Your task to perform on an android device: Open Wikipedia Image 0: 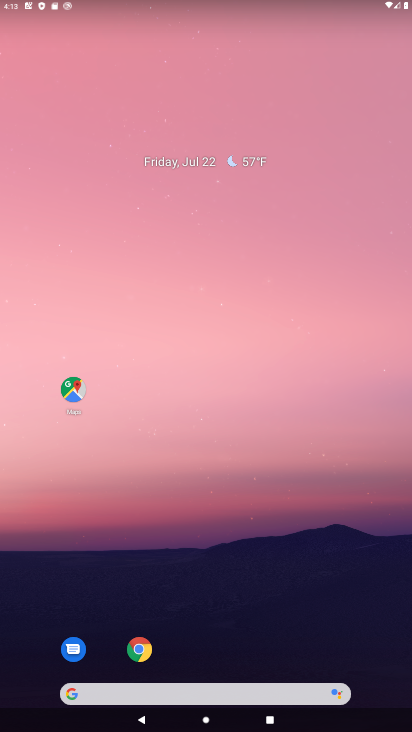
Step 0: click (133, 701)
Your task to perform on an android device: Open Wikipedia Image 1: 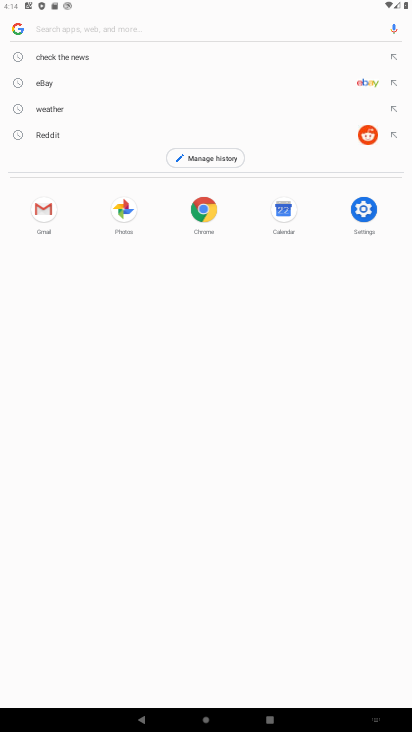
Step 1: type " Wikipedia"
Your task to perform on an android device: Open Wikipedia Image 2: 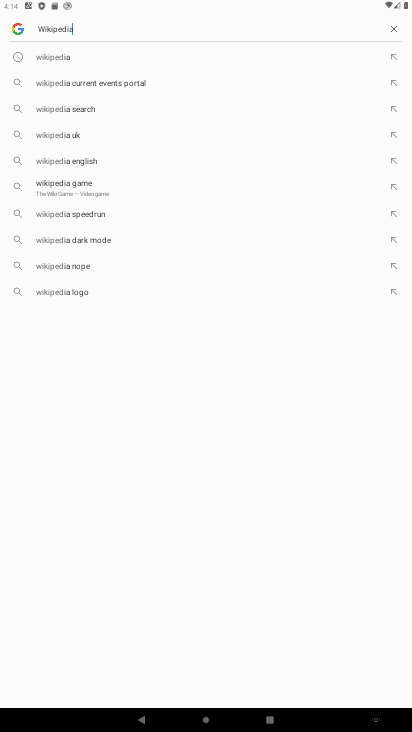
Step 2: type ""
Your task to perform on an android device: Open Wikipedia Image 3: 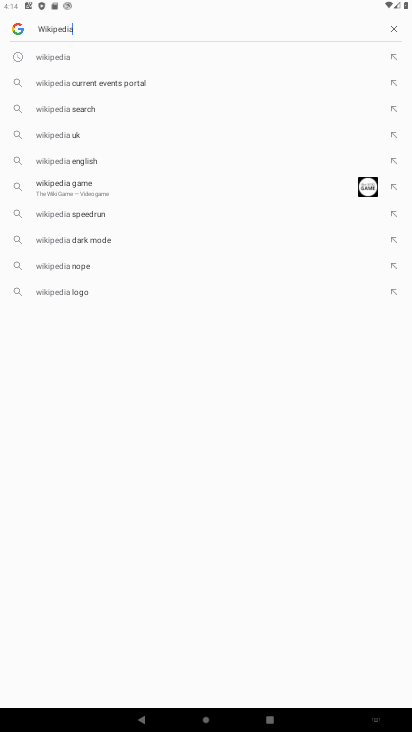
Step 3: click (55, 59)
Your task to perform on an android device: Open Wikipedia Image 4: 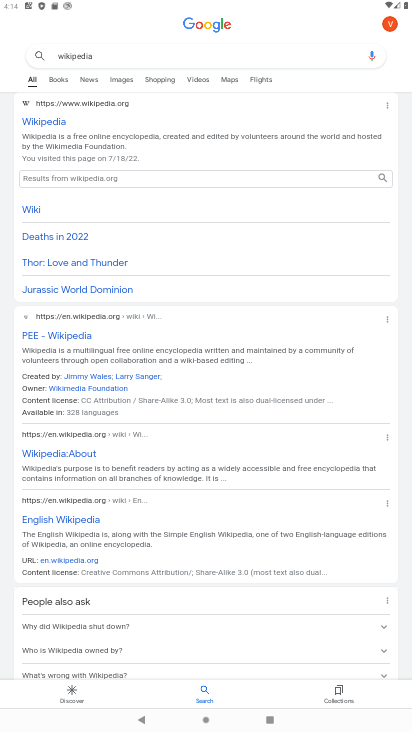
Step 4: task complete